Your task to perform on an android device: change the clock display to show seconds Image 0: 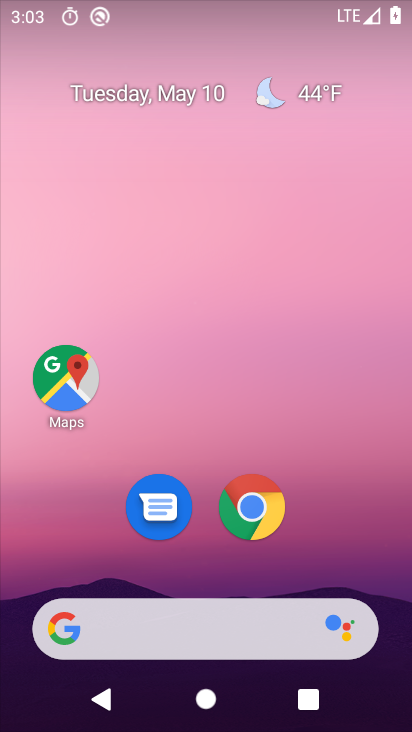
Step 0: drag from (222, 540) to (282, 158)
Your task to perform on an android device: change the clock display to show seconds Image 1: 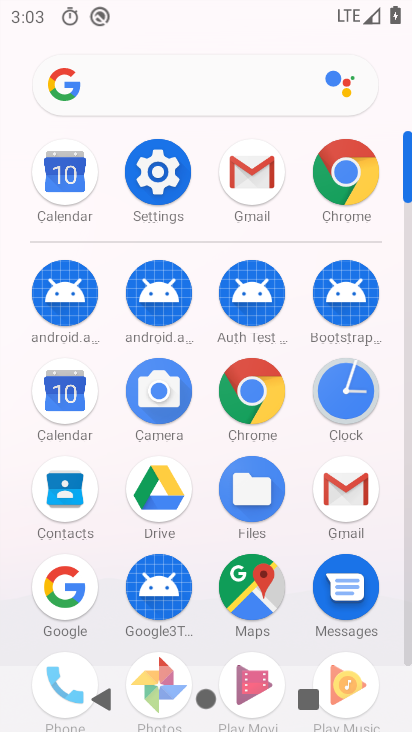
Step 1: click (352, 398)
Your task to perform on an android device: change the clock display to show seconds Image 2: 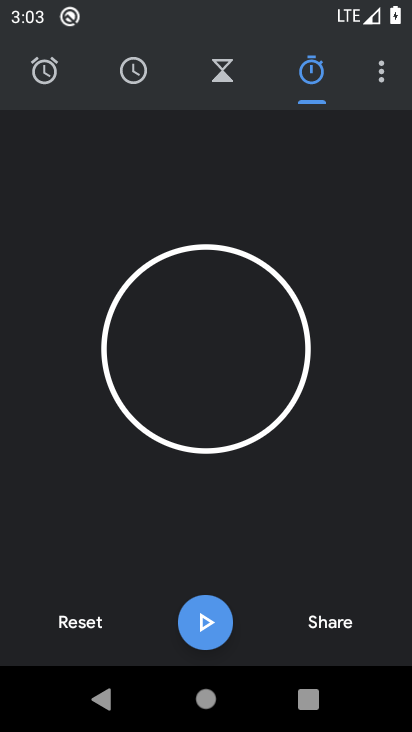
Step 2: click (386, 71)
Your task to perform on an android device: change the clock display to show seconds Image 3: 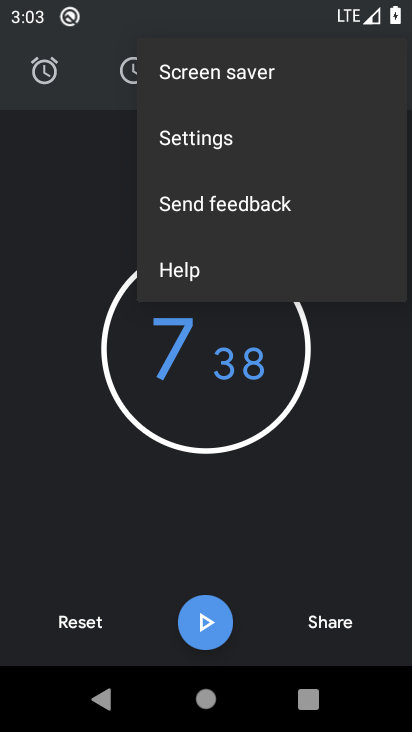
Step 3: click (201, 141)
Your task to perform on an android device: change the clock display to show seconds Image 4: 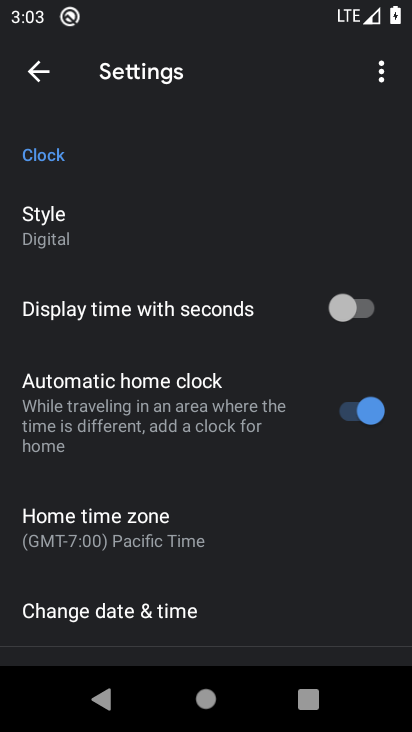
Step 4: click (362, 307)
Your task to perform on an android device: change the clock display to show seconds Image 5: 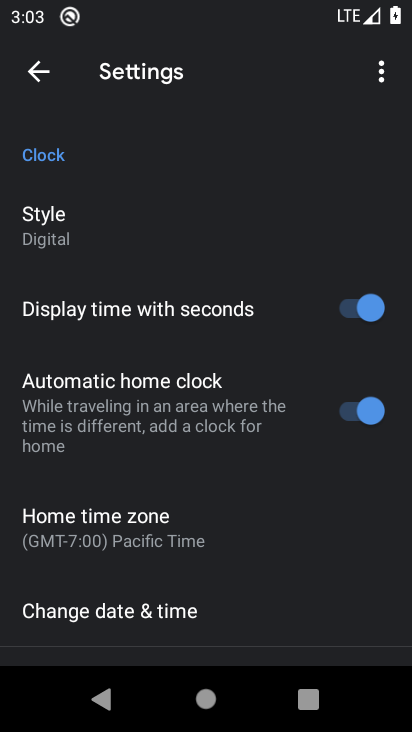
Step 5: task complete